Your task to perform on an android device: What is the recent news? Image 0: 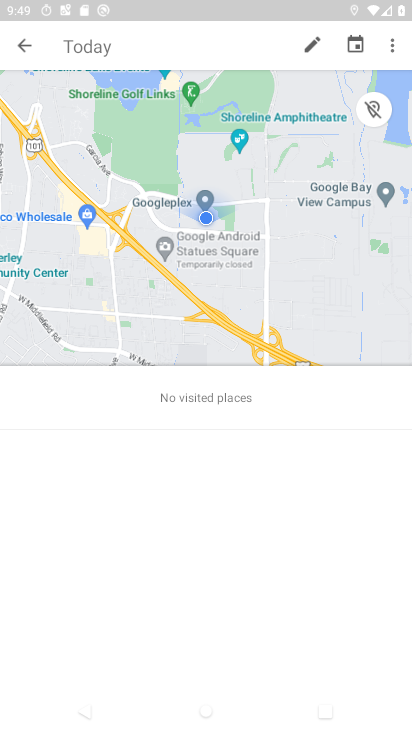
Step 0: press home button
Your task to perform on an android device: What is the recent news? Image 1: 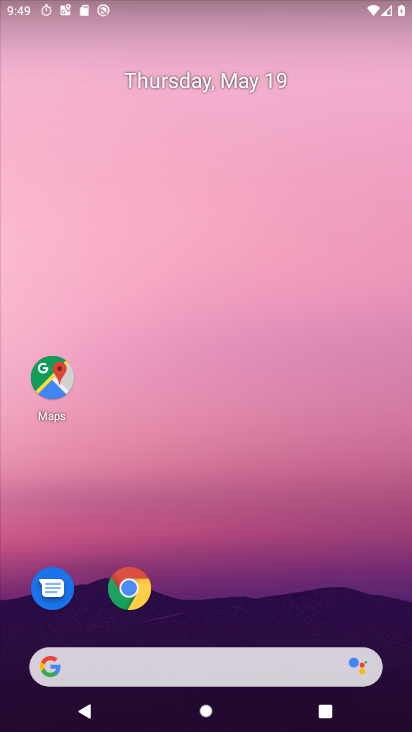
Step 1: click (58, 670)
Your task to perform on an android device: What is the recent news? Image 2: 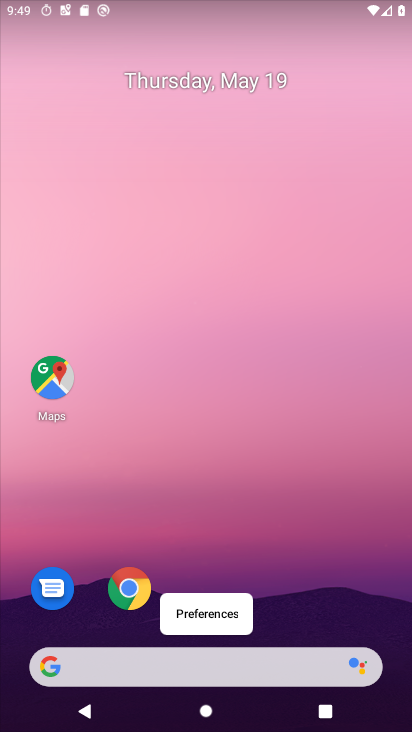
Step 2: click (53, 667)
Your task to perform on an android device: What is the recent news? Image 3: 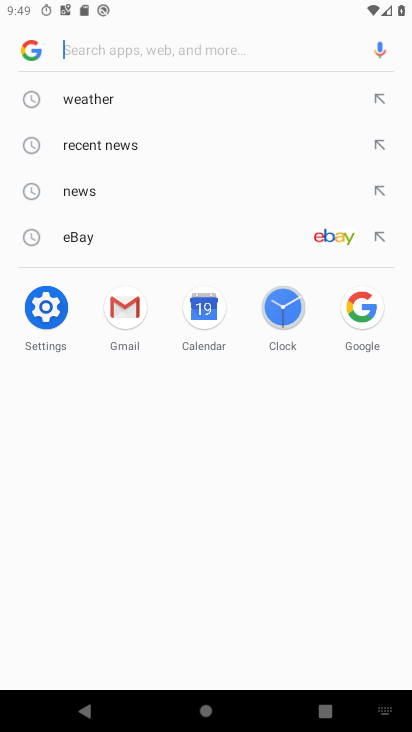
Step 3: click (121, 143)
Your task to perform on an android device: What is the recent news? Image 4: 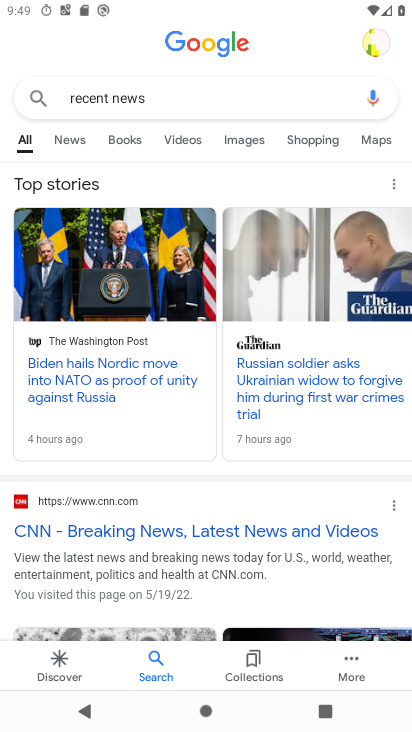
Step 4: click (68, 141)
Your task to perform on an android device: What is the recent news? Image 5: 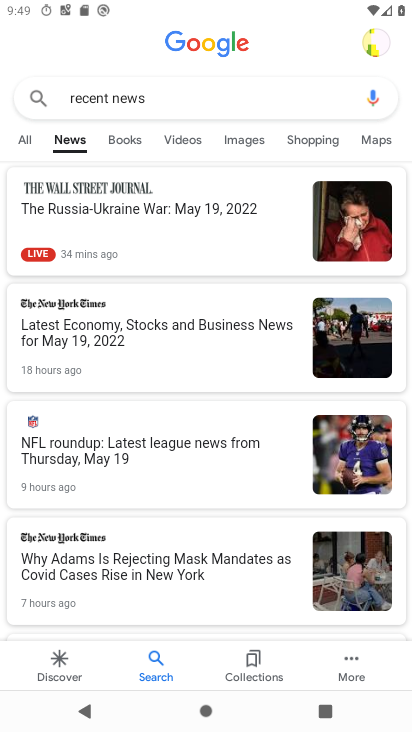
Step 5: task complete